Your task to perform on an android device: Toggle the flashlight Image 0: 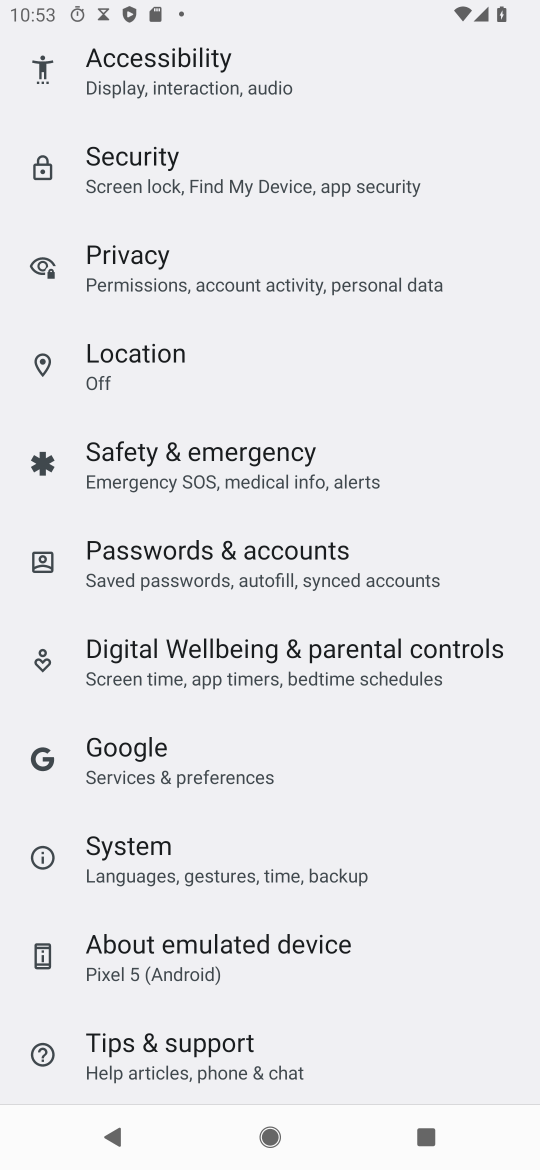
Step 0: press back button
Your task to perform on an android device: Toggle the flashlight Image 1: 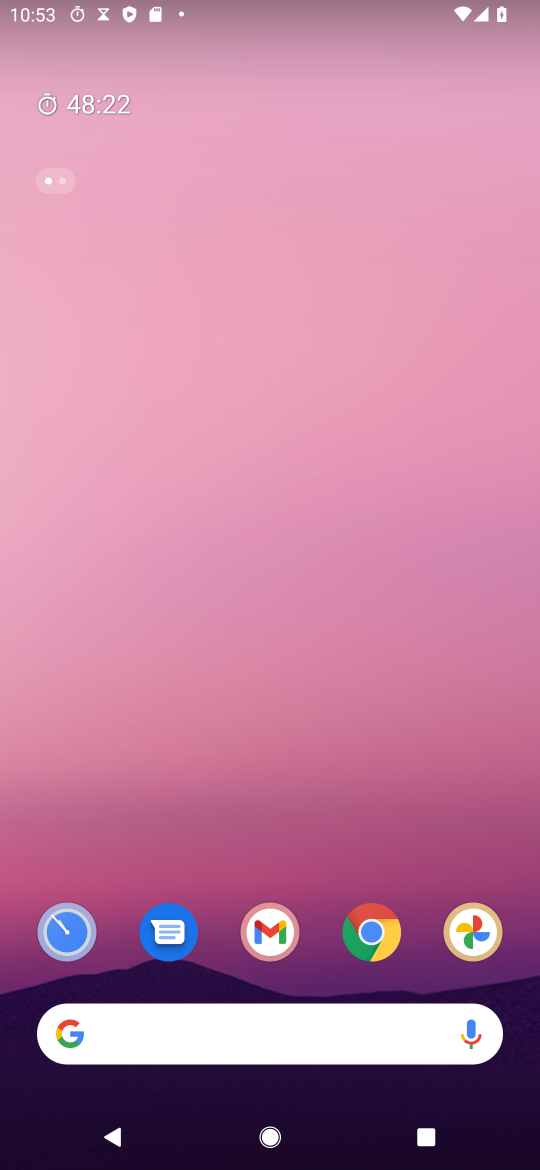
Step 1: drag from (252, 9) to (283, 661)
Your task to perform on an android device: Toggle the flashlight Image 2: 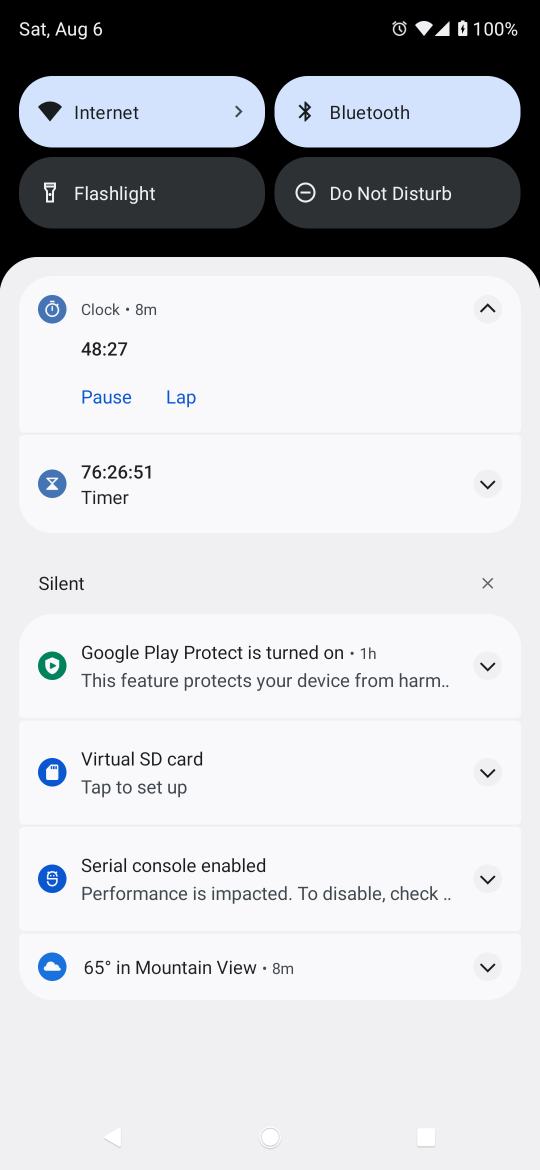
Step 2: click (218, 208)
Your task to perform on an android device: Toggle the flashlight Image 3: 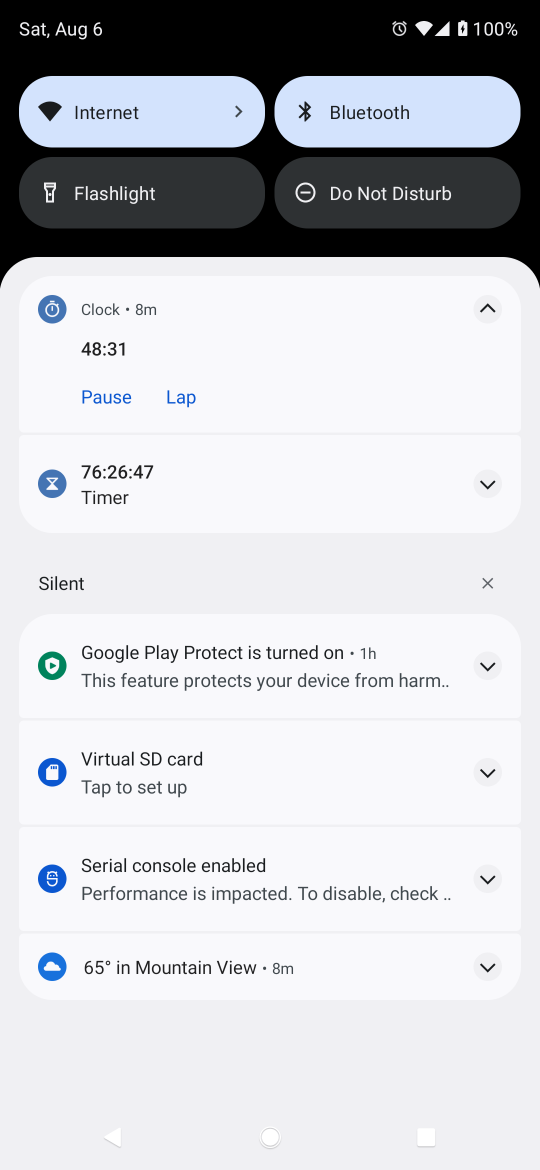
Step 3: click (156, 196)
Your task to perform on an android device: Toggle the flashlight Image 4: 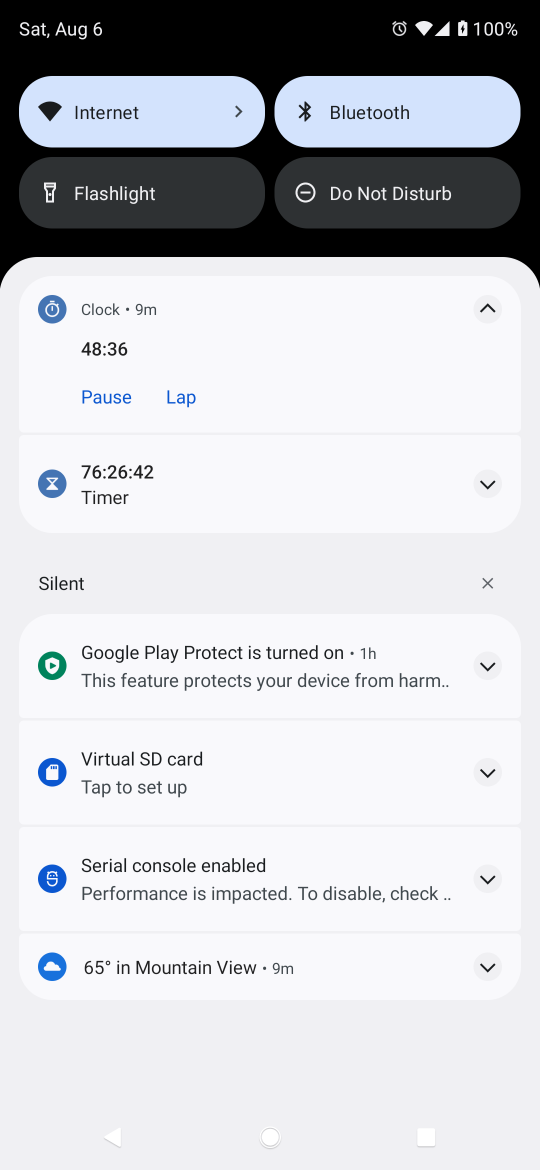
Step 4: task complete